Your task to perform on an android device: Open calendar and show me the first week of next month Image 0: 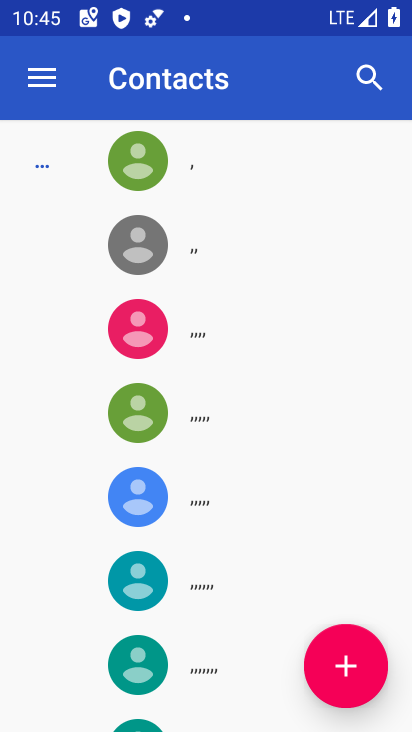
Step 0: press home button
Your task to perform on an android device: Open calendar and show me the first week of next month Image 1: 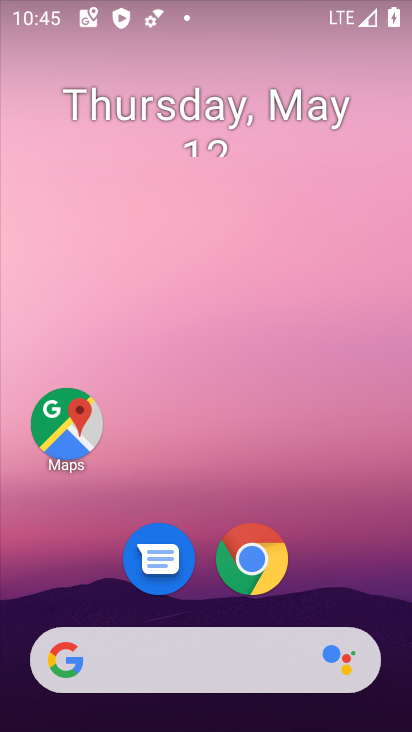
Step 1: drag from (212, 536) to (212, 206)
Your task to perform on an android device: Open calendar and show me the first week of next month Image 2: 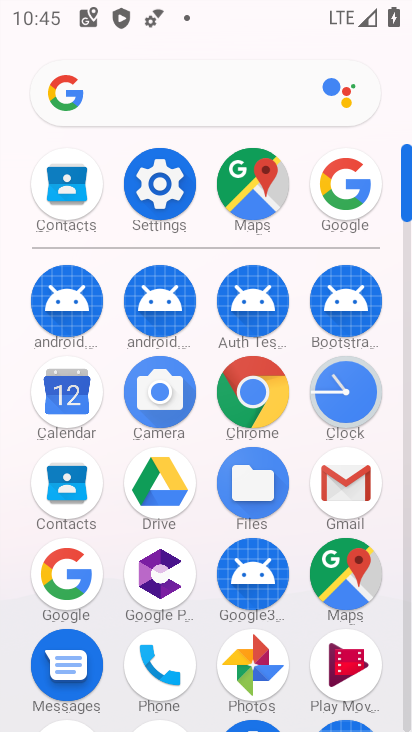
Step 2: click (81, 392)
Your task to perform on an android device: Open calendar and show me the first week of next month Image 3: 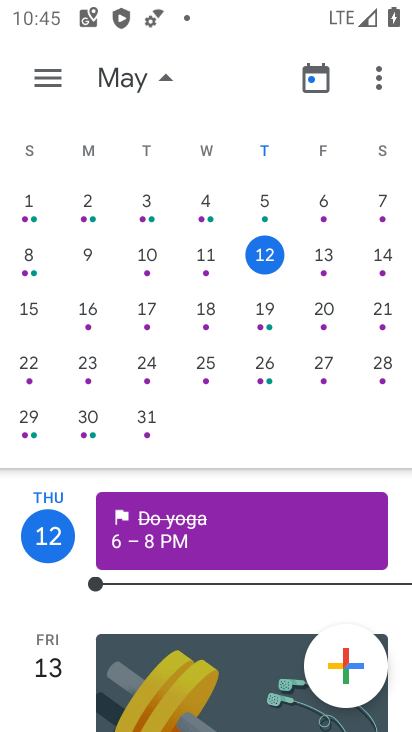
Step 3: drag from (339, 288) to (73, 250)
Your task to perform on an android device: Open calendar and show me the first week of next month Image 4: 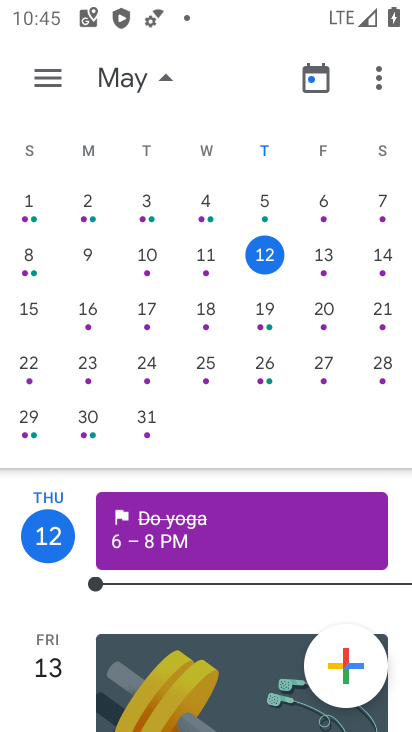
Step 4: drag from (354, 278) to (109, 323)
Your task to perform on an android device: Open calendar and show me the first week of next month Image 5: 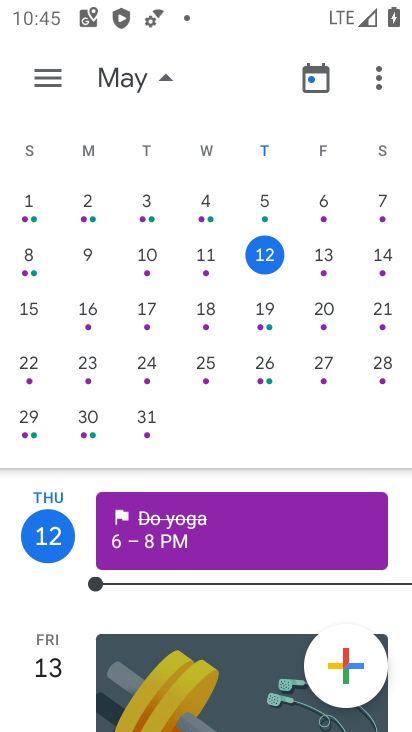
Step 5: drag from (358, 257) to (0, 239)
Your task to perform on an android device: Open calendar and show me the first week of next month Image 6: 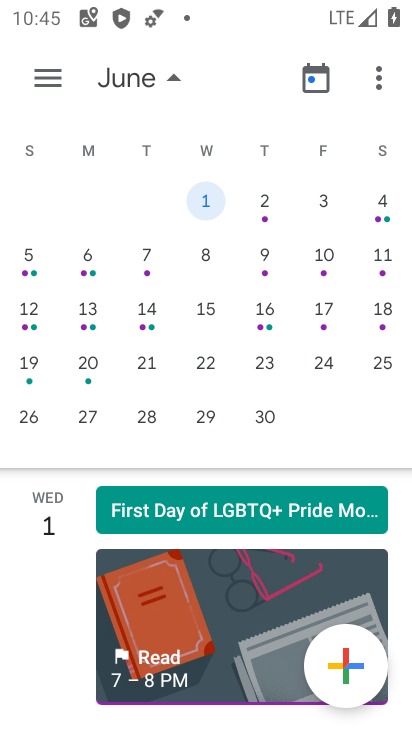
Step 6: drag from (349, 261) to (27, 273)
Your task to perform on an android device: Open calendar and show me the first week of next month Image 7: 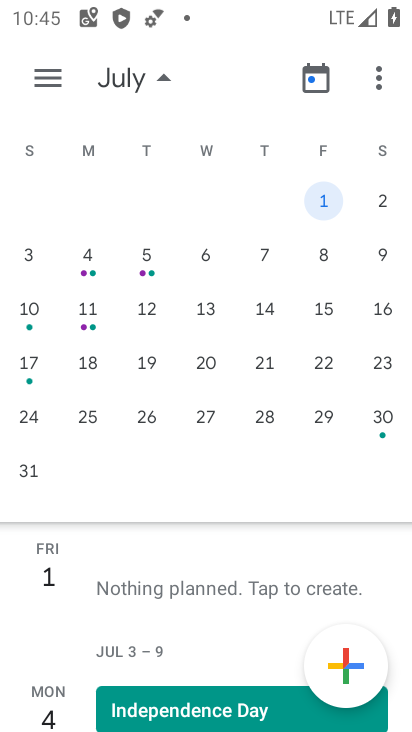
Step 7: drag from (56, 281) to (356, 303)
Your task to perform on an android device: Open calendar and show me the first week of next month Image 8: 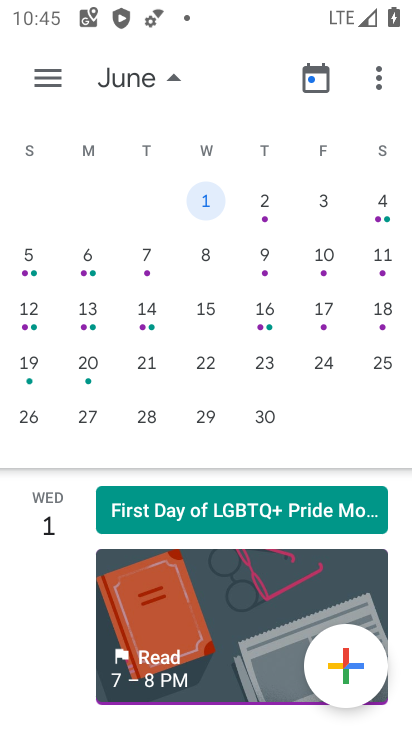
Step 8: click (207, 198)
Your task to perform on an android device: Open calendar and show me the first week of next month Image 9: 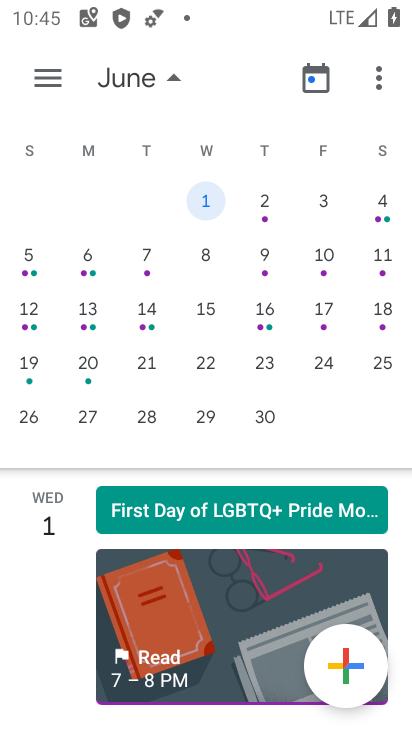
Step 9: task complete